Your task to perform on an android device: toggle javascript in the chrome app Image 0: 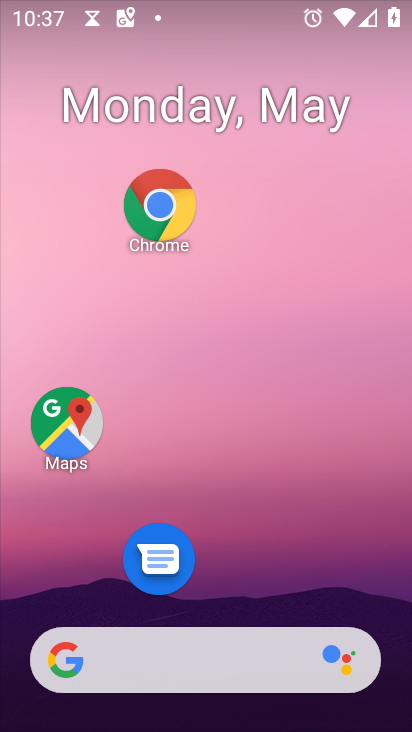
Step 0: drag from (281, 615) to (215, 12)
Your task to perform on an android device: toggle javascript in the chrome app Image 1: 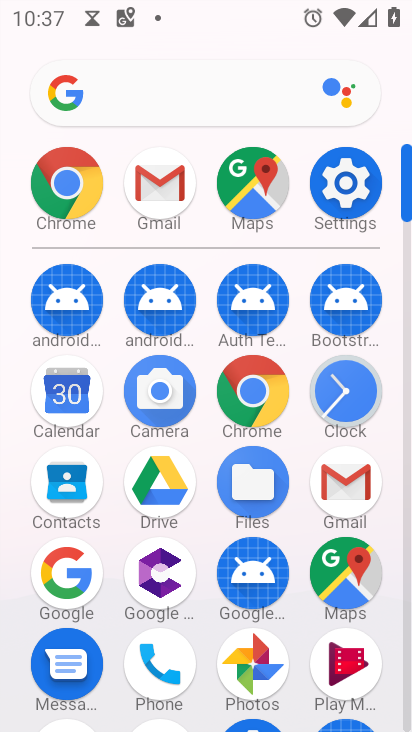
Step 1: click (65, 196)
Your task to perform on an android device: toggle javascript in the chrome app Image 2: 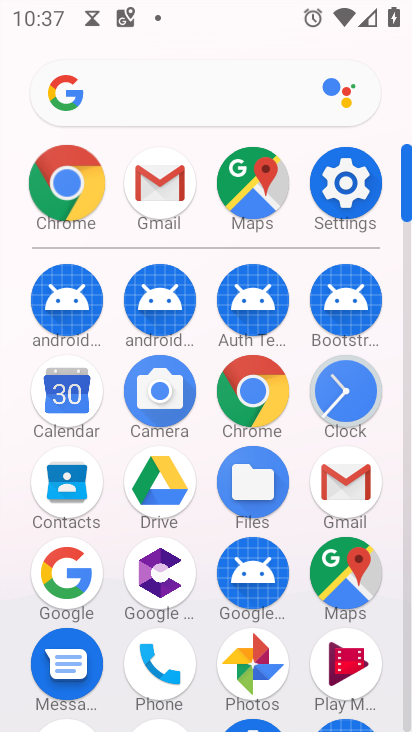
Step 2: click (65, 192)
Your task to perform on an android device: toggle javascript in the chrome app Image 3: 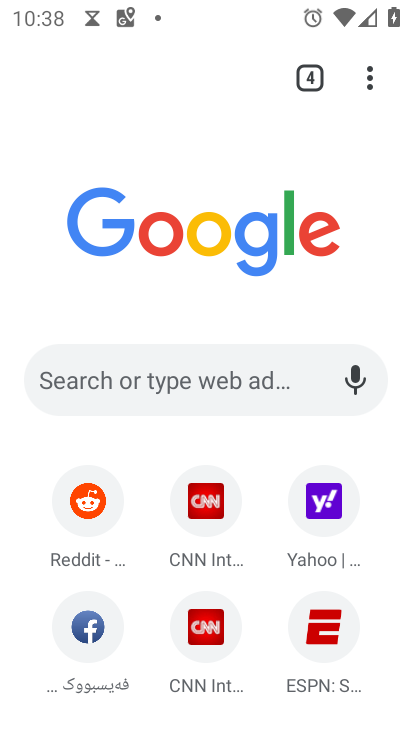
Step 3: drag from (367, 84) to (92, 624)
Your task to perform on an android device: toggle javascript in the chrome app Image 4: 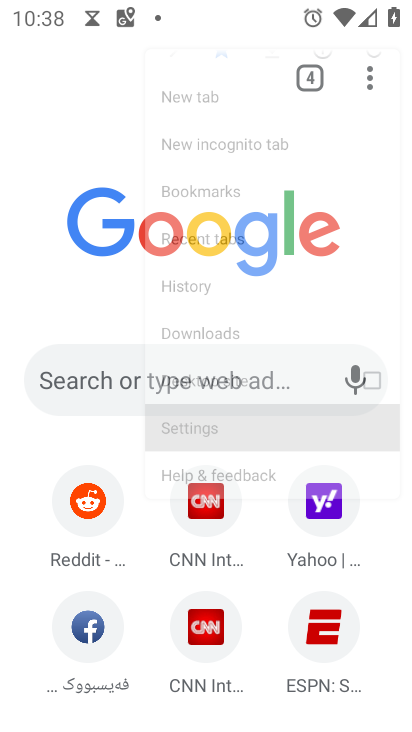
Step 4: click (97, 624)
Your task to perform on an android device: toggle javascript in the chrome app Image 5: 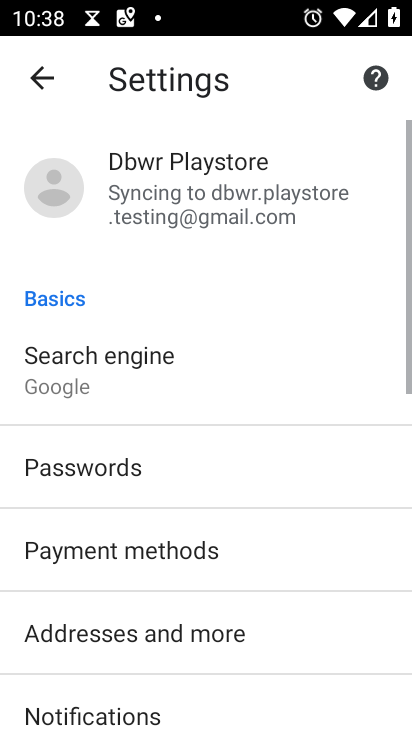
Step 5: drag from (128, 586) to (142, 138)
Your task to perform on an android device: toggle javascript in the chrome app Image 6: 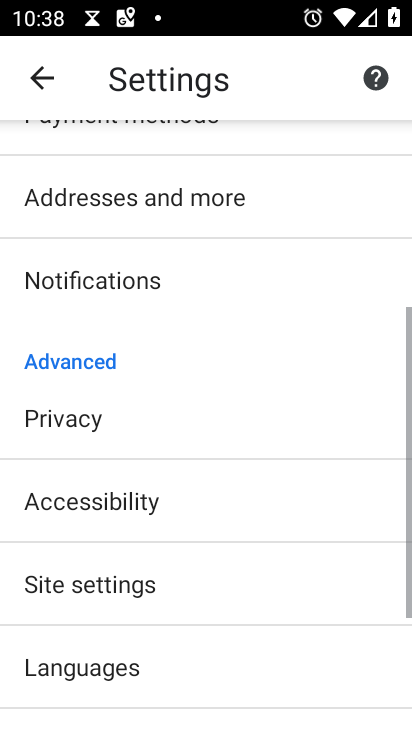
Step 6: drag from (174, 499) to (198, 139)
Your task to perform on an android device: toggle javascript in the chrome app Image 7: 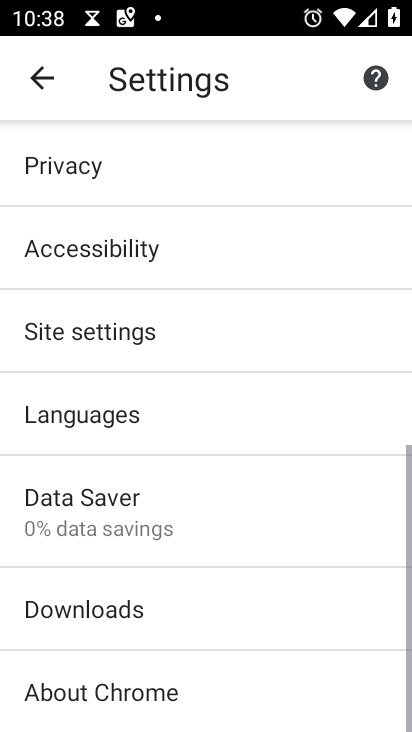
Step 7: click (75, 336)
Your task to perform on an android device: toggle javascript in the chrome app Image 8: 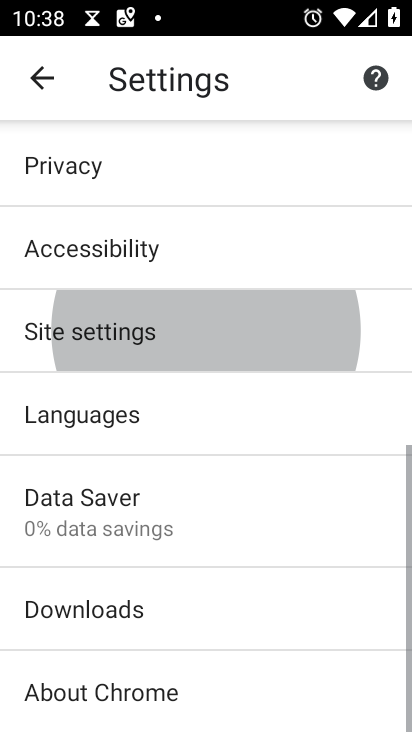
Step 8: click (75, 336)
Your task to perform on an android device: toggle javascript in the chrome app Image 9: 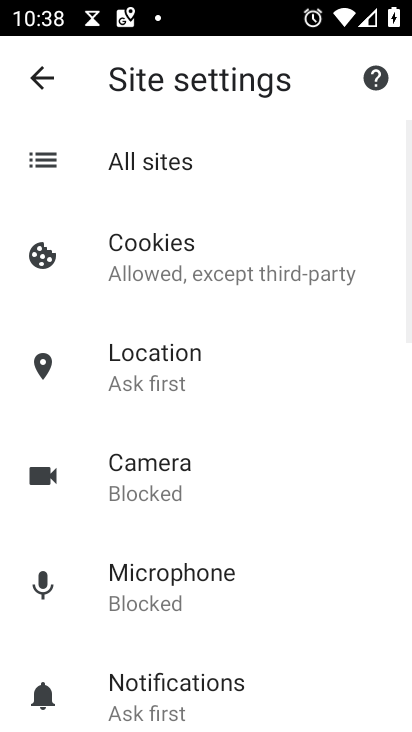
Step 9: drag from (182, 244) to (245, 89)
Your task to perform on an android device: toggle javascript in the chrome app Image 10: 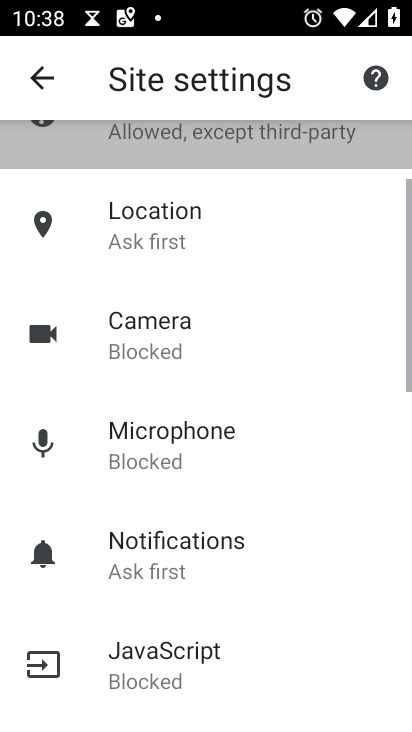
Step 10: drag from (248, 502) to (240, 206)
Your task to perform on an android device: toggle javascript in the chrome app Image 11: 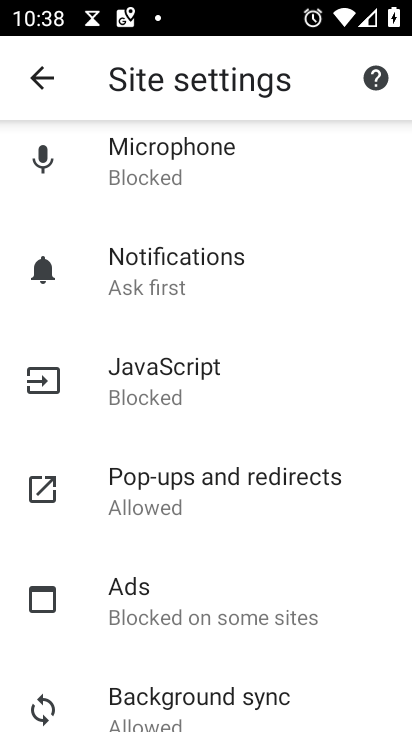
Step 11: click (155, 377)
Your task to perform on an android device: toggle javascript in the chrome app Image 12: 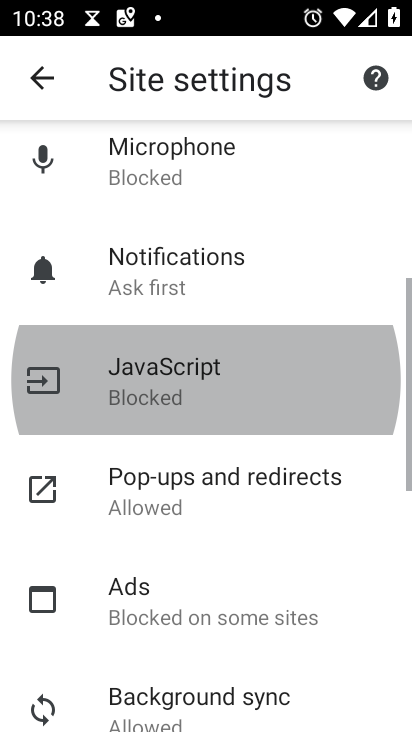
Step 12: click (173, 380)
Your task to perform on an android device: toggle javascript in the chrome app Image 13: 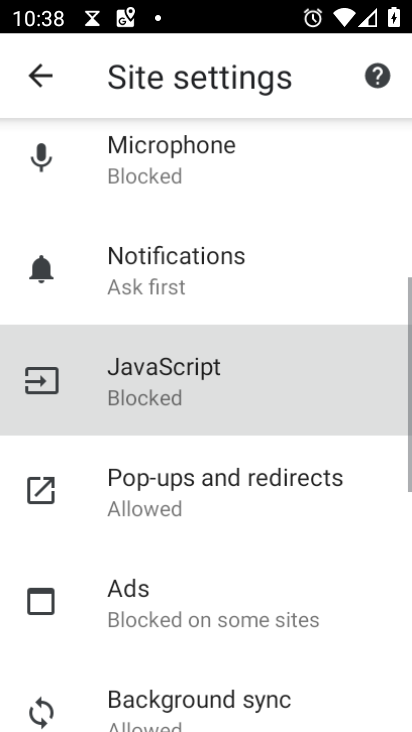
Step 13: click (173, 380)
Your task to perform on an android device: toggle javascript in the chrome app Image 14: 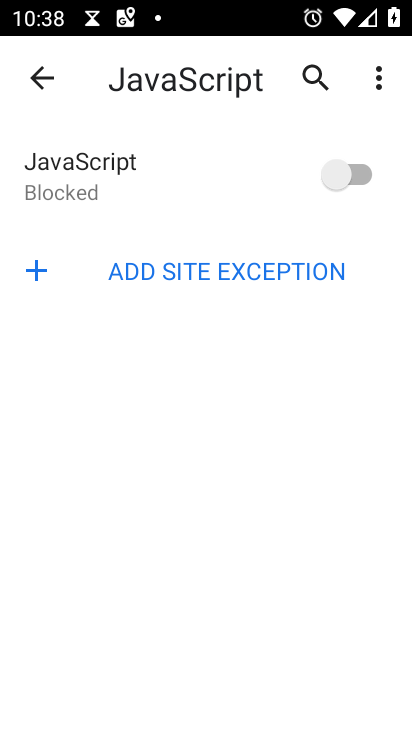
Step 14: click (173, 381)
Your task to perform on an android device: toggle javascript in the chrome app Image 15: 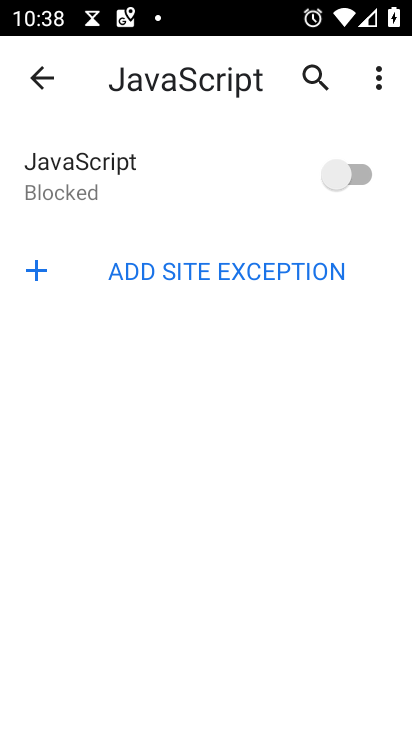
Step 15: click (340, 170)
Your task to perform on an android device: toggle javascript in the chrome app Image 16: 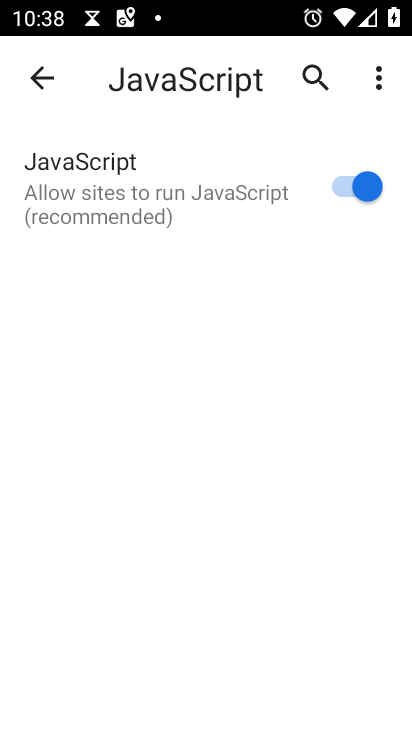
Step 16: task complete